Your task to perform on an android device: turn off priority inbox in the gmail app Image 0: 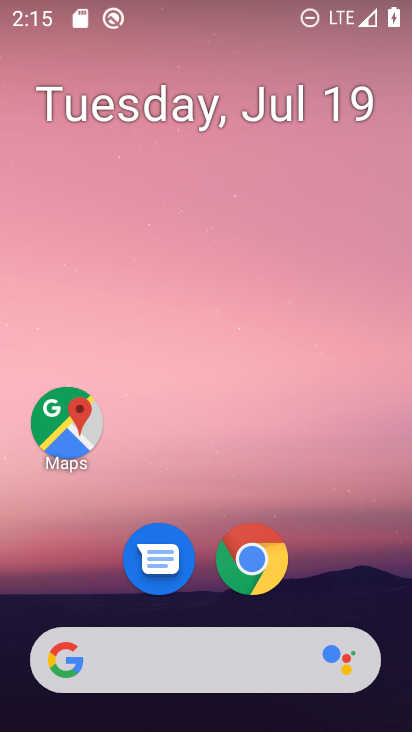
Step 0: drag from (249, 595) to (216, 134)
Your task to perform on an android device: turn off priority inbox in the gmail app Image 1: 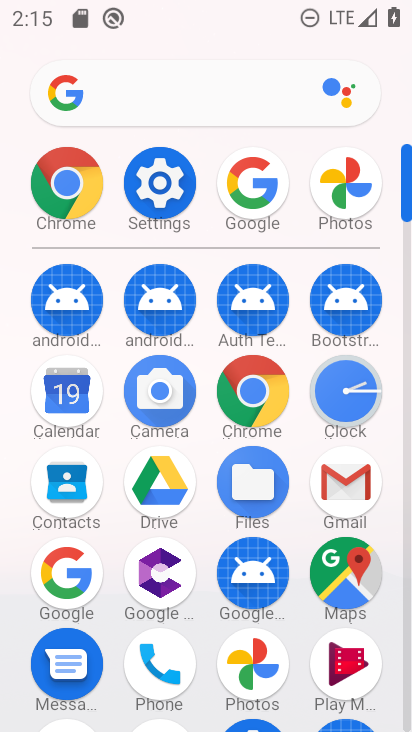
Step 1: click (354, 495)
Your task to perform on an android device: turn off priority inbox in the gmail app Image 2: 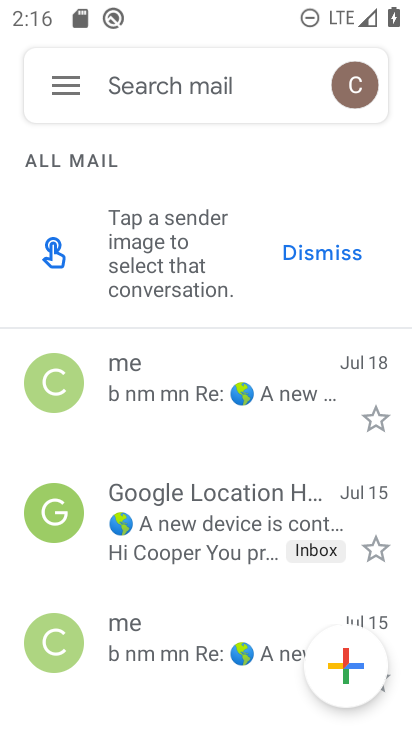
Step 2: click (47, 69)
Your task to perform on an android device: turn off priority inbox in the gmail app Image 3: 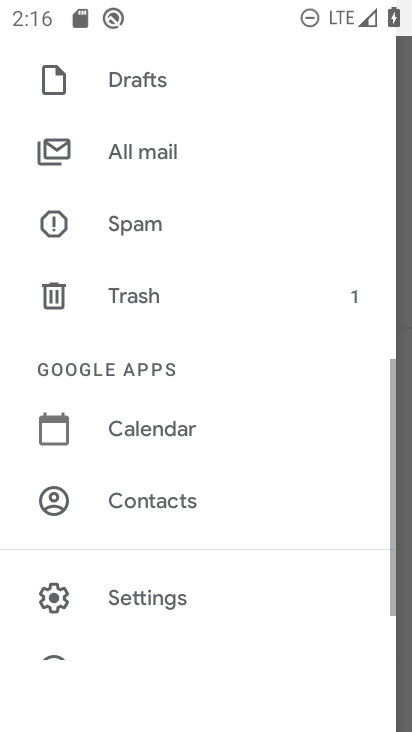
Step 3: click (134, 570)
Your task to perform on an android device: turn off priority inbox in the gmail app Image 4: 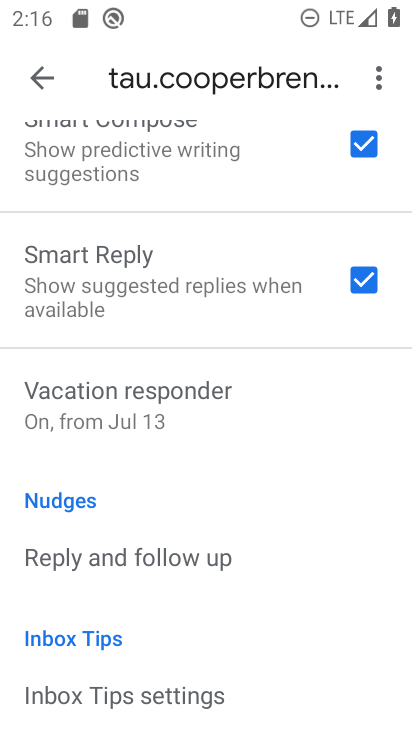
Step 4: drag from (188, 305) to (397, 414)
Your task to perform on an android device: turn off priority inbox in the gmail app Image 5: 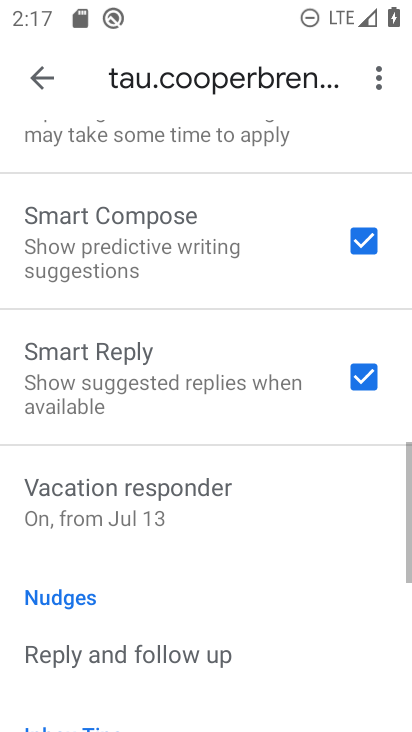
Step 5: drag from (243, 297) to (264, 550)
Your task to perform on an android device: turn off priority inbox in the gmail app Image 6: 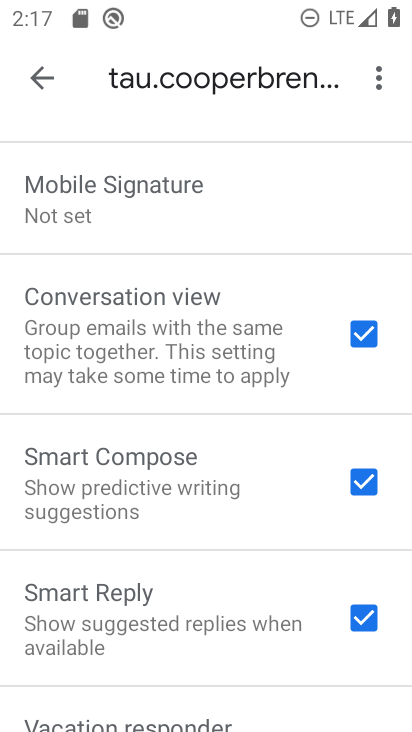
Step 6: drag from (166, 206) to (253, 708)
Your task to perform on an android device: turn off priority inbox in the gmail app Image 7: 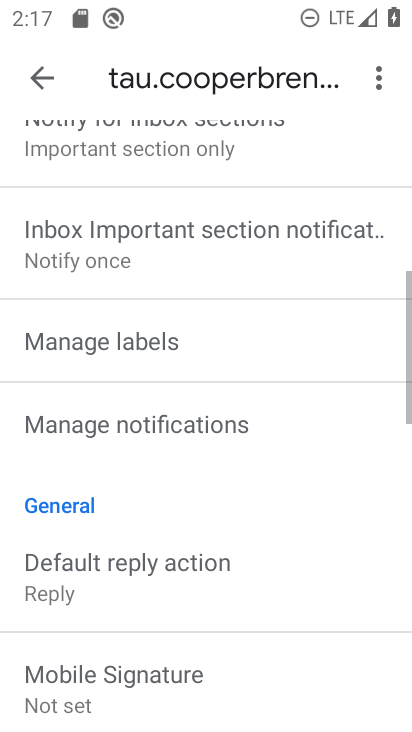
Step 7: drag from (129, 318) to (228, 689)
Your task to perform on an android device: turn off priority inbox in the gmail app Image 8: 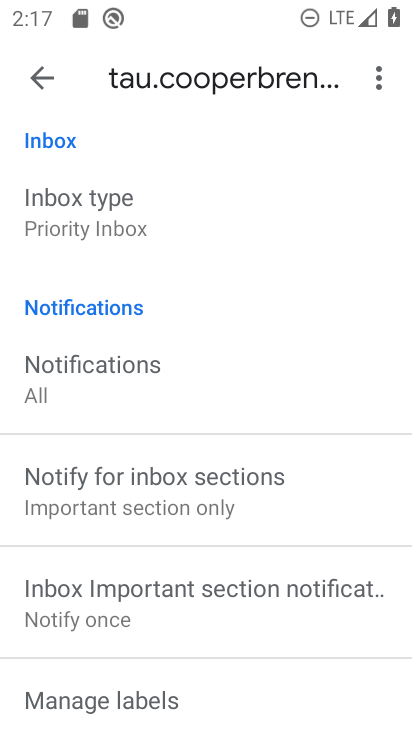
Step 8: click (66, 204)
Your task to perform on an android device: turn off priority inbox in the gmail app Image 9: 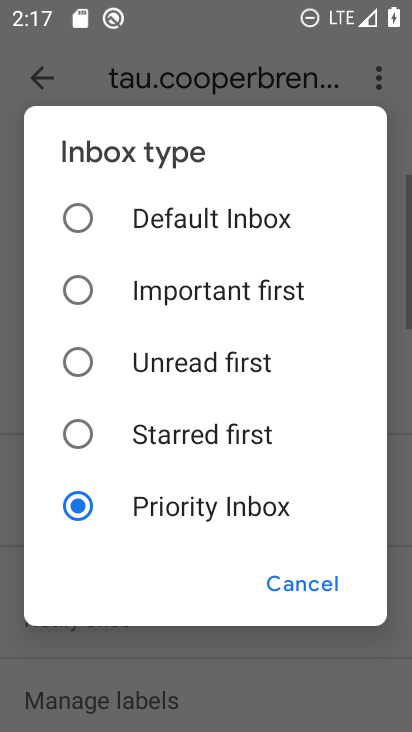
Step 9: click (106, 238)
Your task to perform on an android device: turn off priority inbox in the gmail app Image 10: 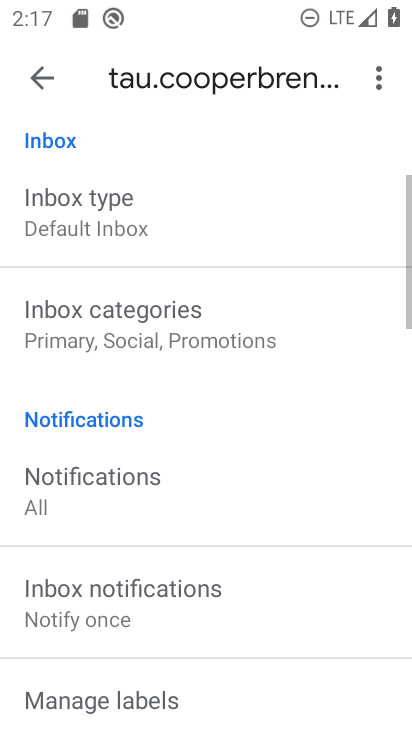
Step 10: task complete